Your task to perform on an android device: turn notification dots off Image 0: 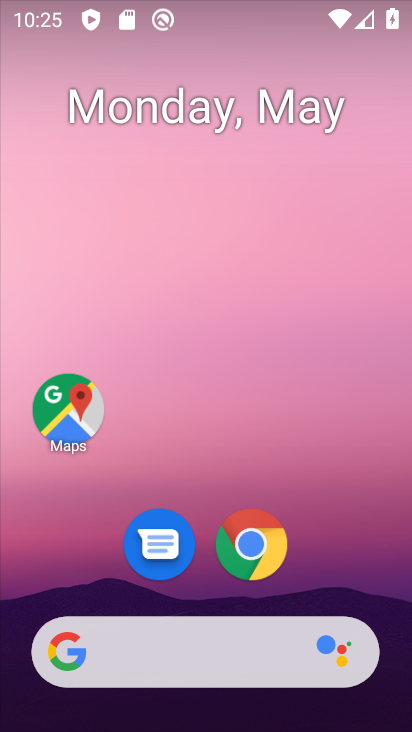
Step 0: drag from (346, 575) to (273, 118)
Your task to perform on an android device: turn notification dots off Image 1: 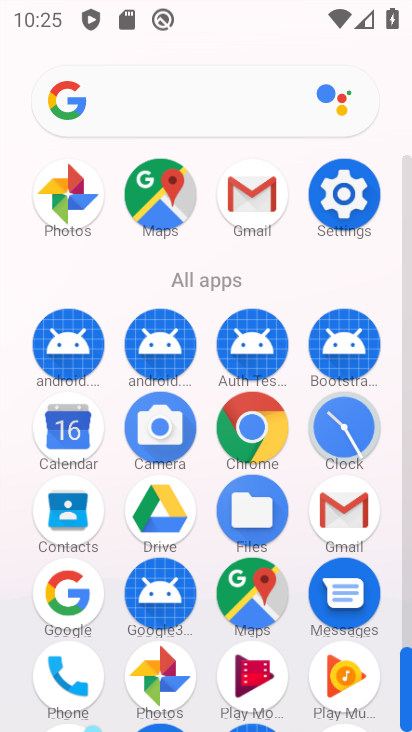
Step 1: click (347, 193)
Your task to perform on an android device: turn notification dots off Image 2: 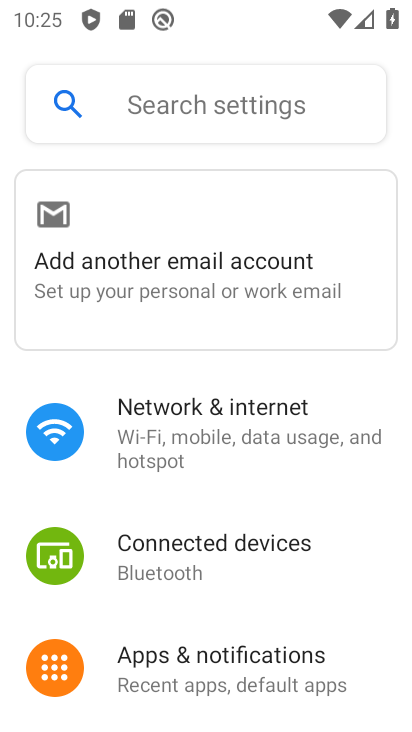
Step 2: click (305, 651)
Your task to perform on an android device: turn notification dots off Image 3: 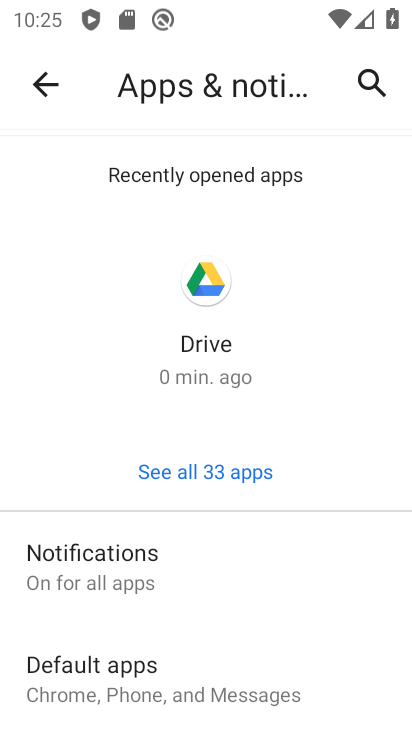
Step 3: click (259, 574)
Your task to perform on an android device: turn notification dots off Image 4: 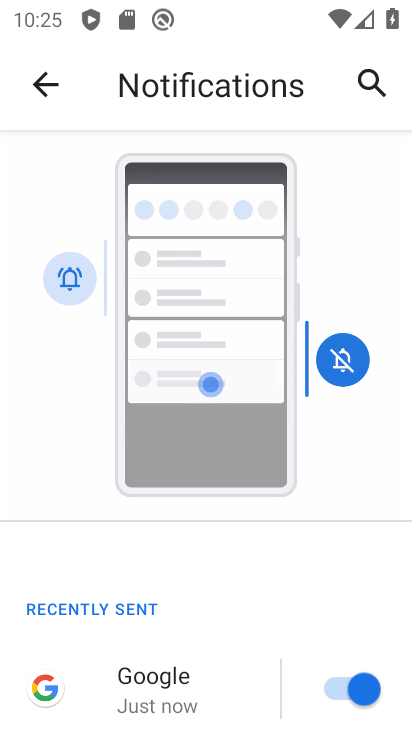
Step 4: drag from (260, 687) to (234, 74)
Your task to perform on an android device: turn notification dots off Image 5: 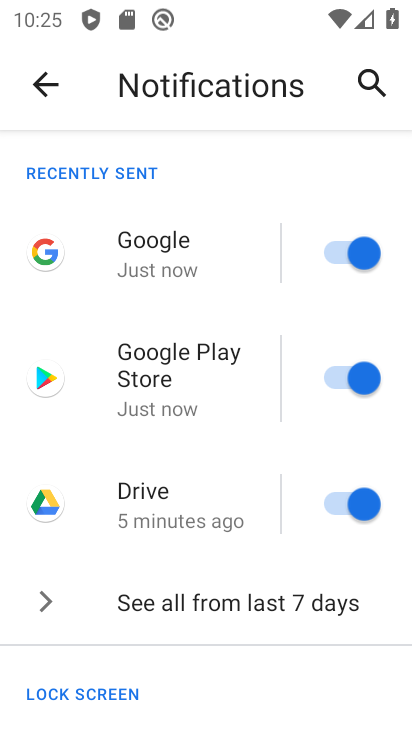
Step 5: drag from (341, 674) to (293, 73)
Your task to perform on an android device: turn notification dots off Image 6: 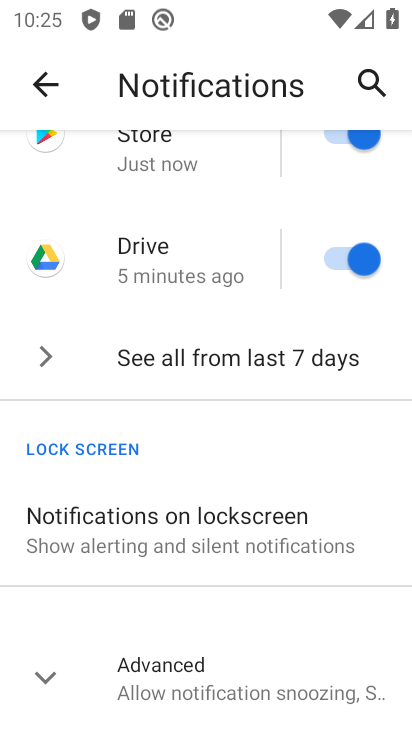
Step 6: click (307, 704)
Your task to perform on an android device: turn notification dots off Image 7: 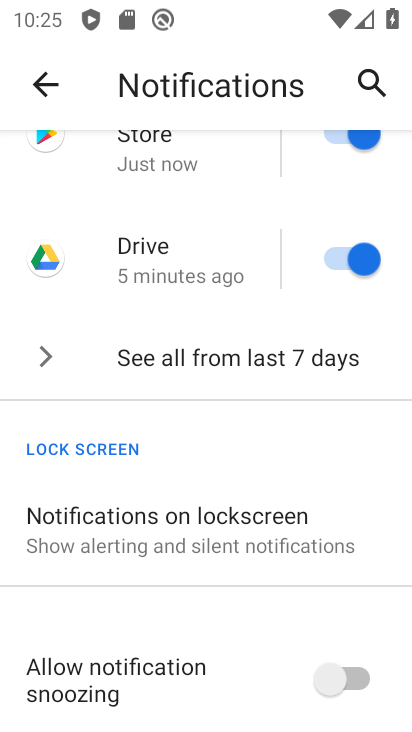
Step 7: drag from (231, 677) to (261, 145)
Your task to perform on an android device: turn notification dots off Image 8: 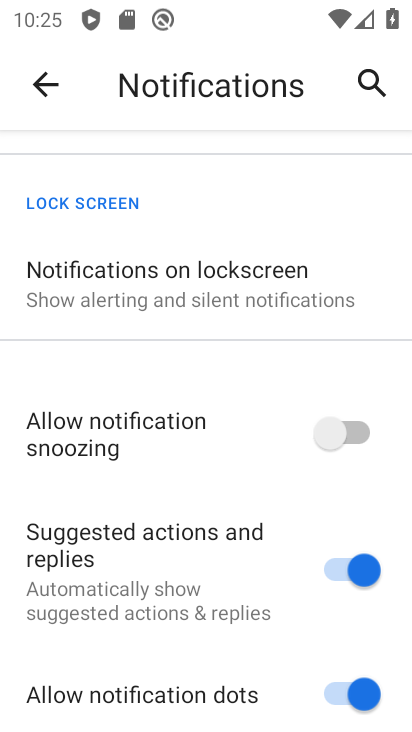
Step 8: click (348, 677)
Your task to perform on an android device: turn notification dots off Image 9: 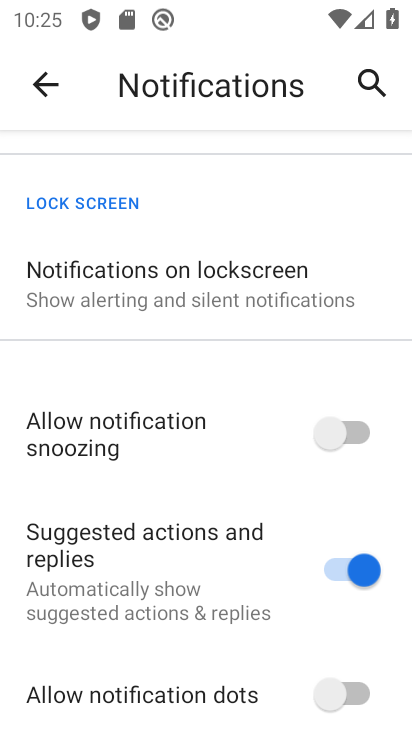
Step 9: task complete